Your task to perform on an android device: What's the weather today? Image 0: 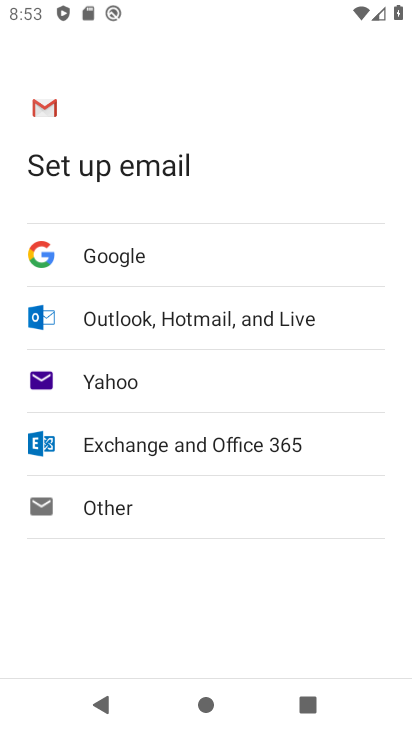
Step 0: click (64, 343)
Your task to perform on an android device: What's the weather today? Image 1: 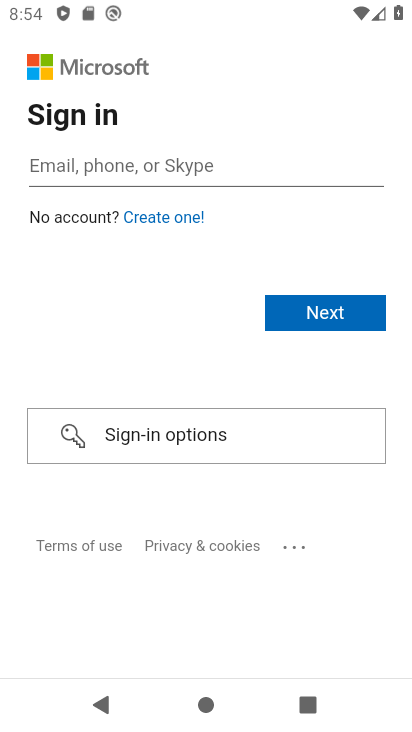
Step 1: press home button
Your task to perform on an android device: What's the weather today? Image 2: 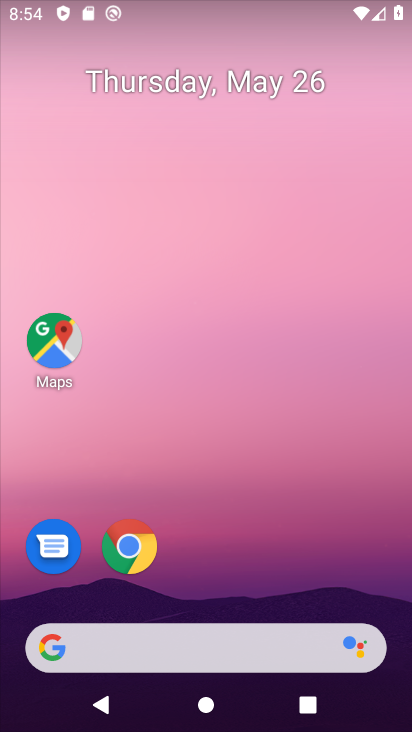
Step 2: click (128, 548)
Your task to perform on an android device: What's the weather today? Image 3: 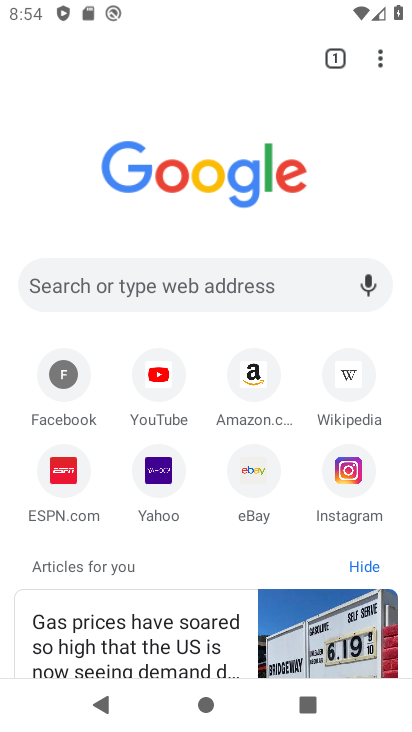
Step 3: drag from (229, 682) to (398, 716)
Your task to perform on an android device: What's the weather today? Image 4: 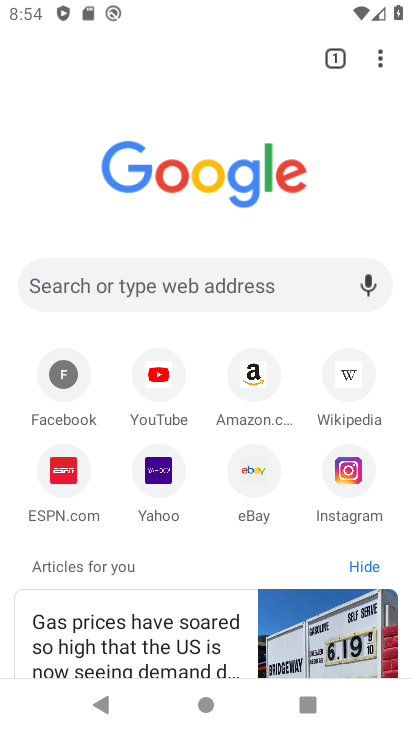
Step 4: click (280, 278)
Your task to perform on an android device: What's the weather today? Image 5: 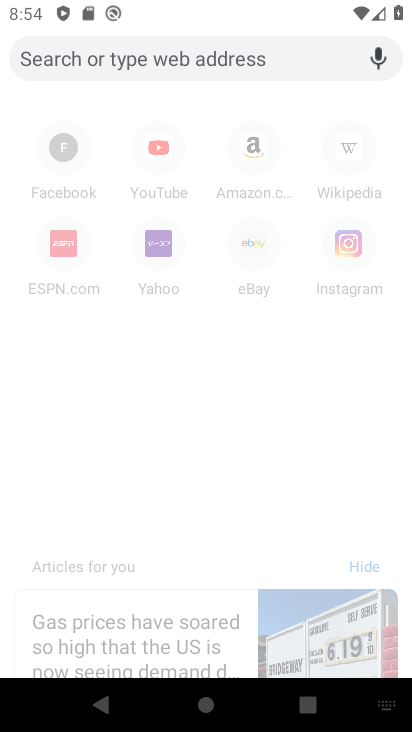
Step 5: type "What's the weather today?"
Your task to perform on an android device: What's the weather today? Image 6: 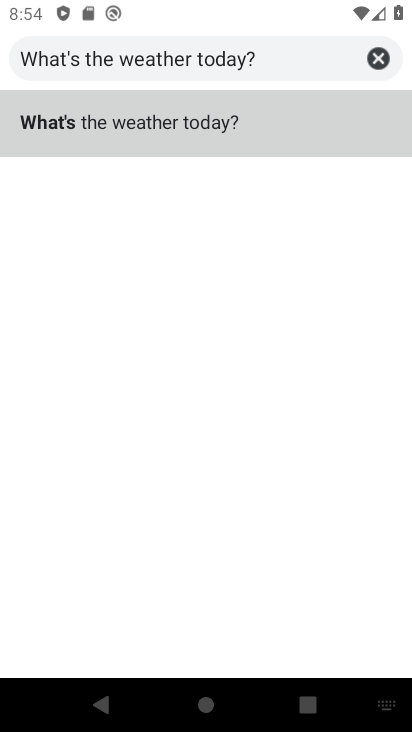
Step 6: click (189, 124)
Your task to perform on an android device: What's the weather today? Image 7: 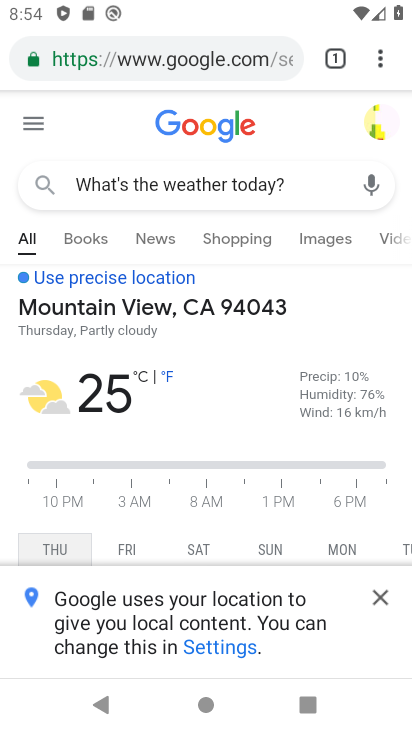
Step 7: click (383, 597)
Your task to perform on an android device: What's the weather today? Image 8: 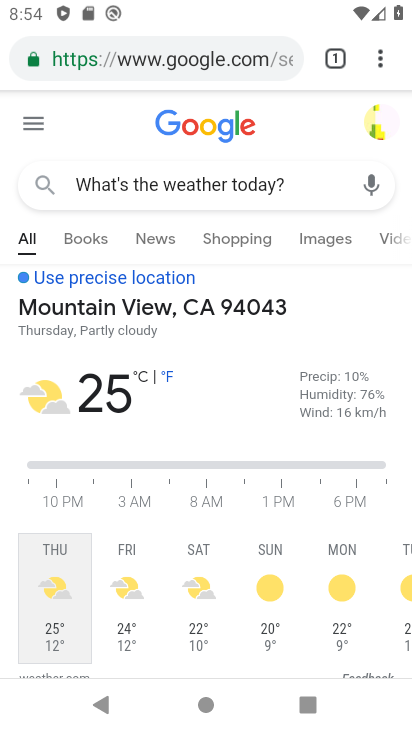
Step 8: click (133, 574)
Your task to perform on an android device: What's the weather today? Image 9: 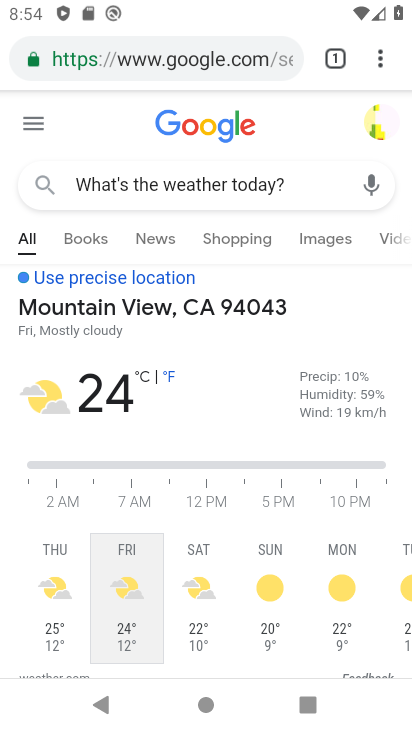
Step 9: task complete